Your task to perform on an android device: turn off sleep mode Image 0: 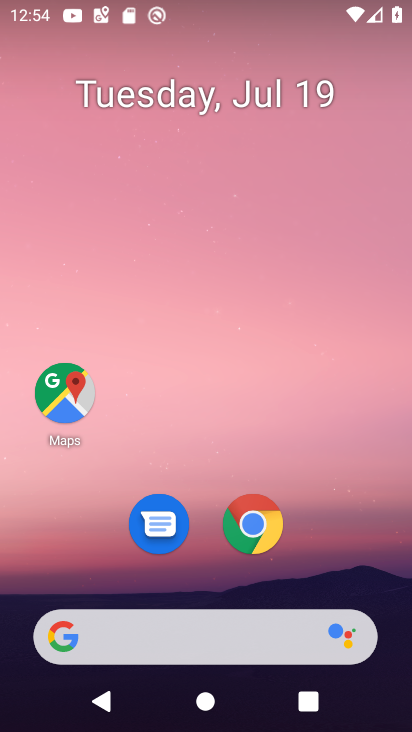
Step 0: drag from (313, 511) to (236, 31)
Your task to perform on an android device: turn off sleep mode Image 1: 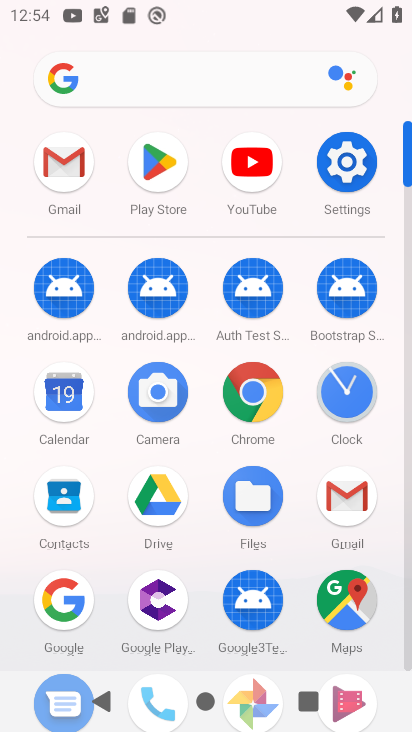
Step 1: click (353, 170)
Your task to perform on an android device: turn off sleep mode Image 2: 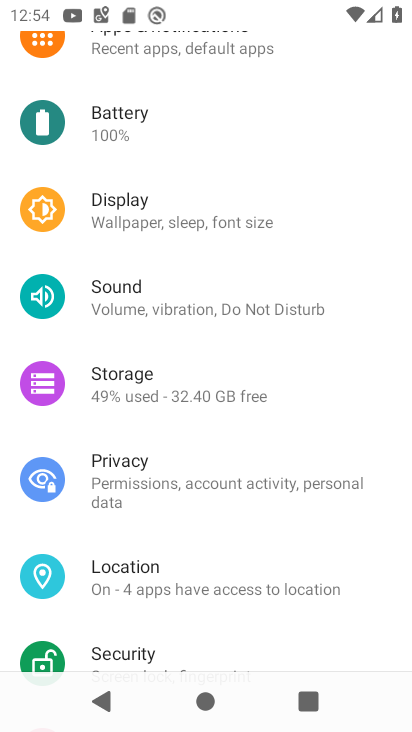
Step 2: click (201, 218)
Your task to perform on an android device: turn off sleep mode Image 3: 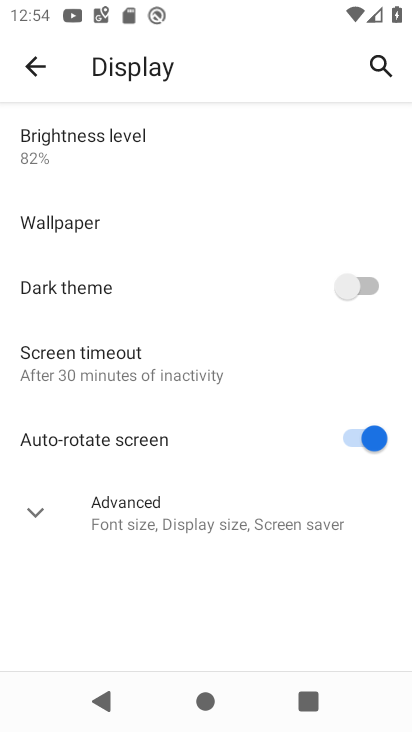
Step 3: click (33, 503)
Your task to perform on an android device: turn off sleep mode Image 4: 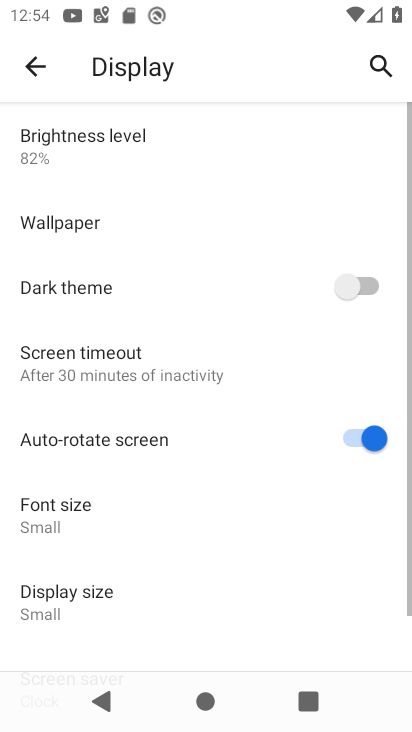
Step 4: task complete